Your task to perform on an android device: Open the Play Movies app and select the watchlist tab. Image 0: 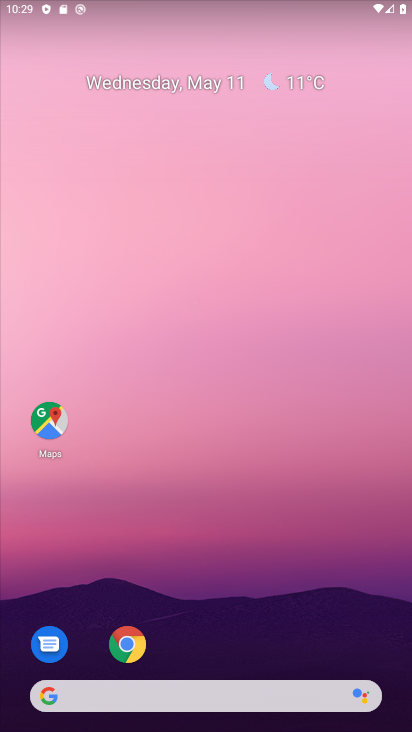
Step 0: drag from (369, 570) to (332, 6)
Your task to perform on an android device: Open the Play Movies app and select the watchlist tab. Image 1: 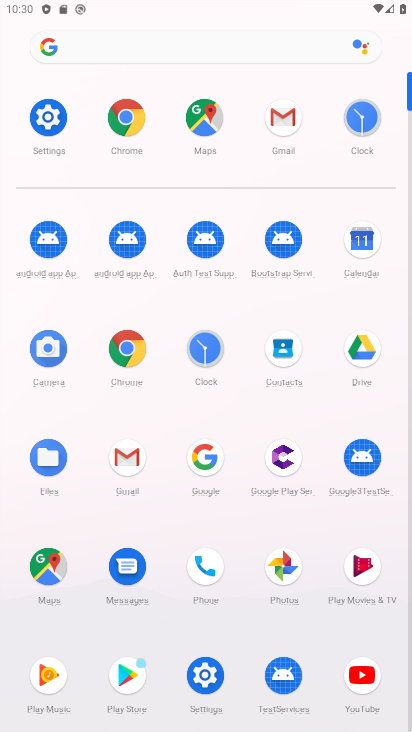
Step 1: click (356, 566)
Your task to perform on an android device: Open the Play Movies app and select the watchlist tab. Image 2: 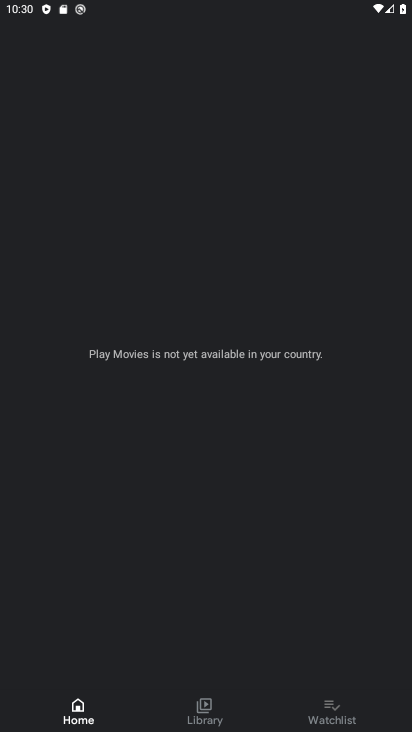
Step 2: click (314, 716)
Your task to perform on an android device: Open the Play Movies app and select the watchlist tab. Image 3: 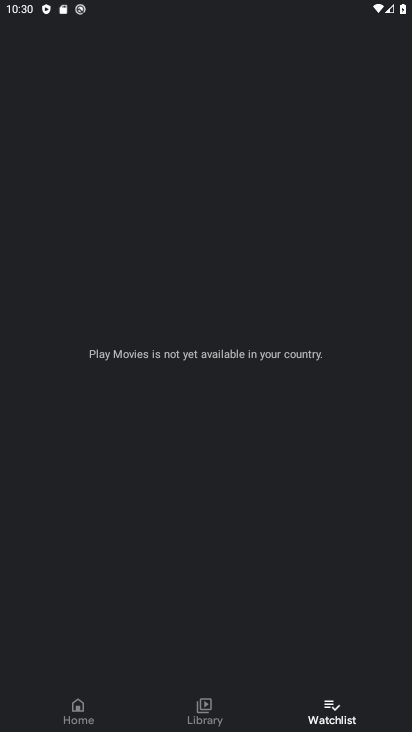
Step 3: task complete